Your task to perform on an android device: delete the emails in spam in the gmail app Image 0: 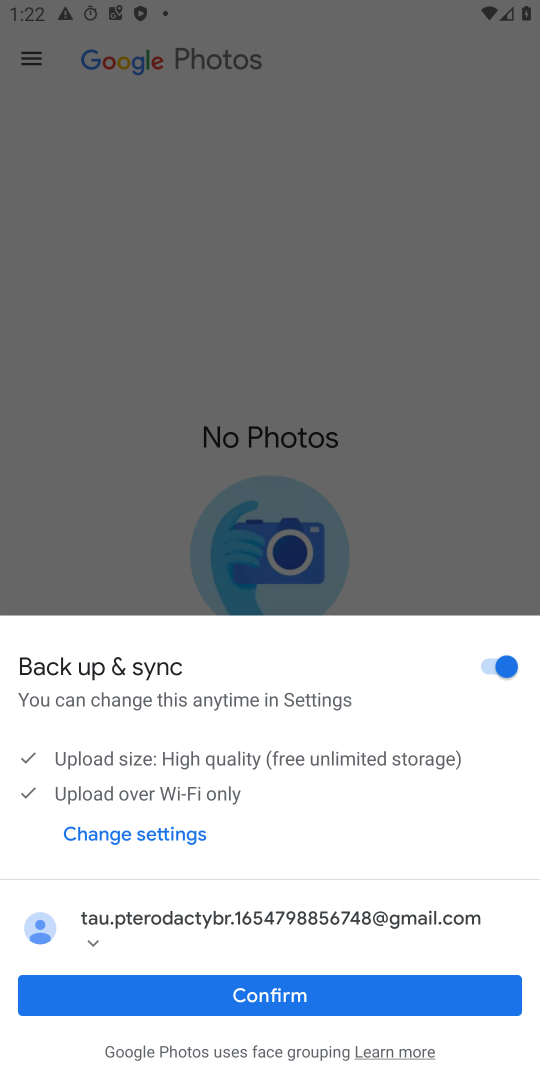
Step 0: press home button
Your task to perform on an android device: delete the emails in spam in the gmail app Image 1: 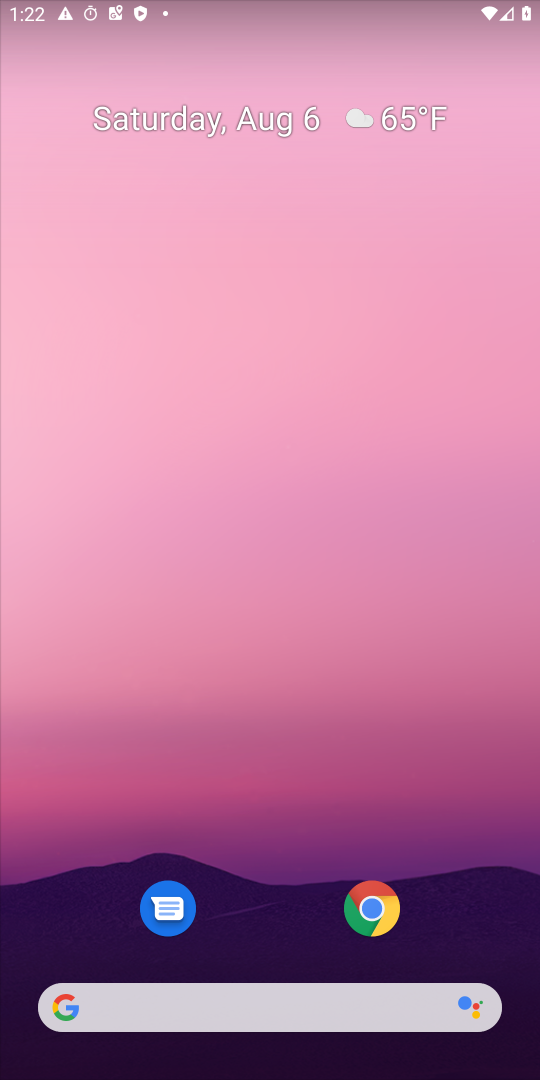
Step 1: drag from (266, 895) to (444, 138)
Your task to perform on an android device: delete the emails in spam in the gmail app Image 2: 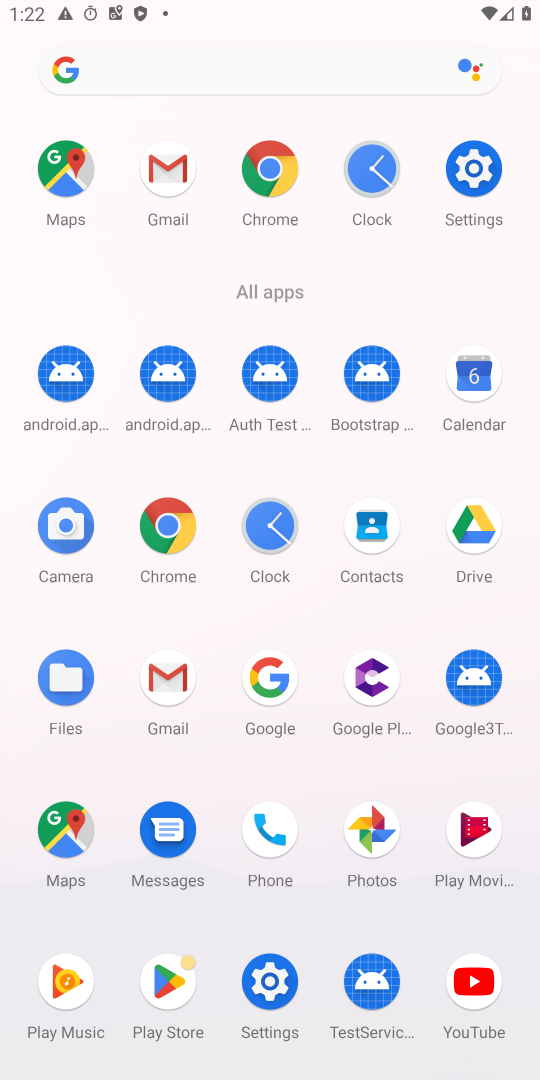
Step 2: click (159, 683)
Your task to perform on an android device: delete the emails in spam in the gmail app Image 3: 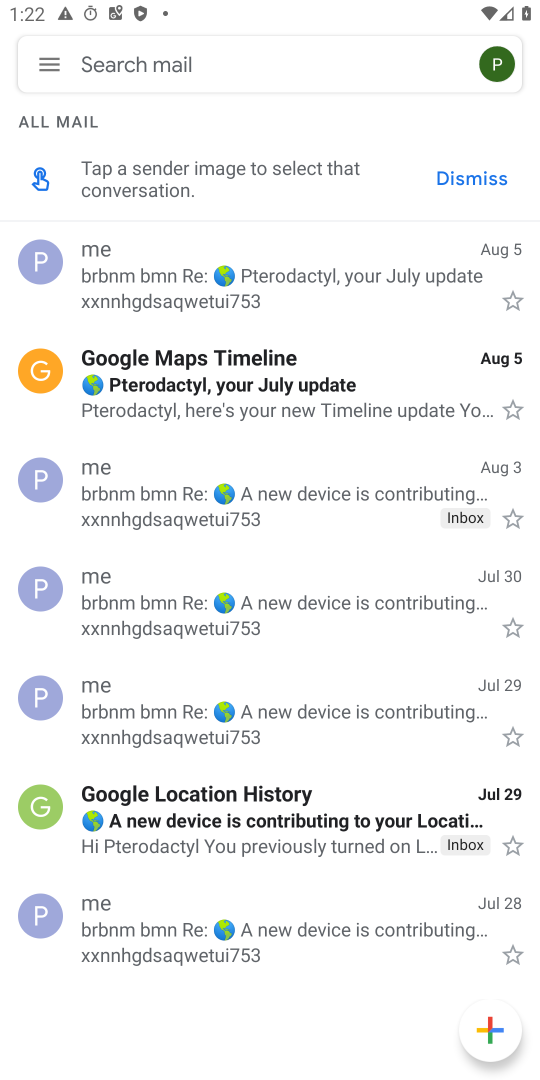
Step 3: click (52, 75)
Your task to perform on an android device: delete the emails in spam in the gmail app Image 4: 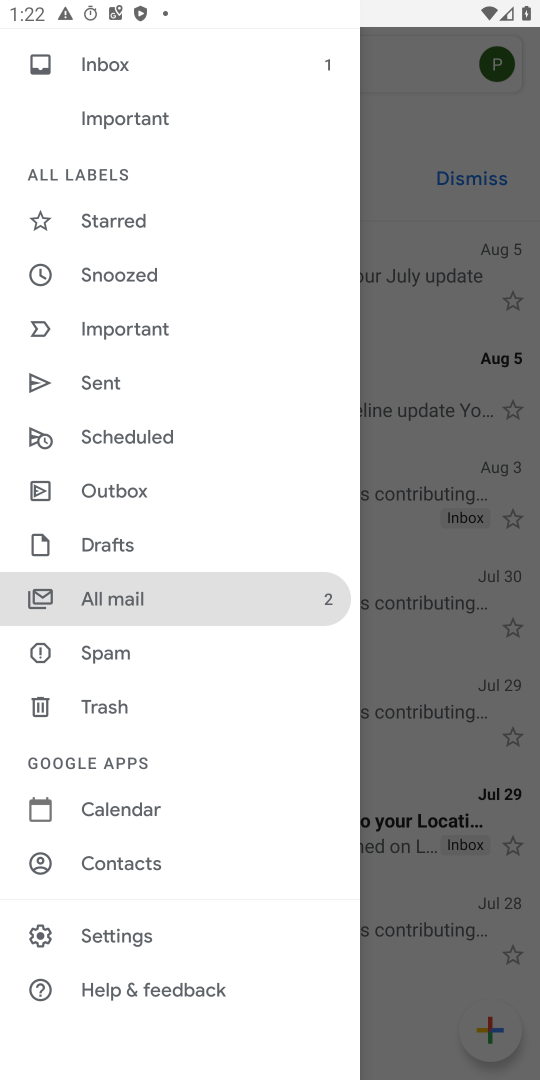
Step 4: click (149, 642)
Your task to perform on an android device: delete the emails in spam in the gmail app Image 5: 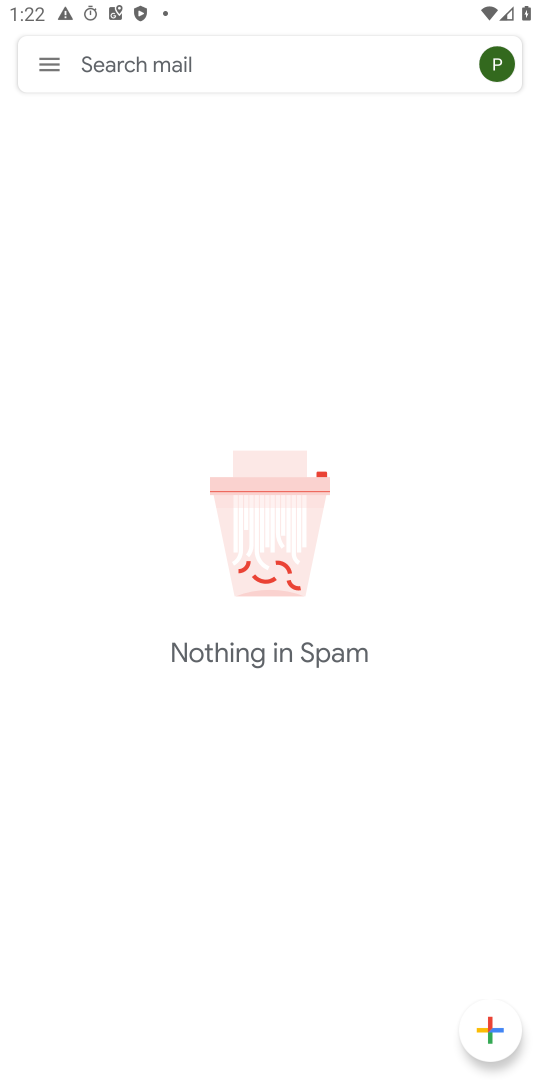
Step 5: task complete